Your task to perform on an android device: see sites visited before in the chrome app Image 0: 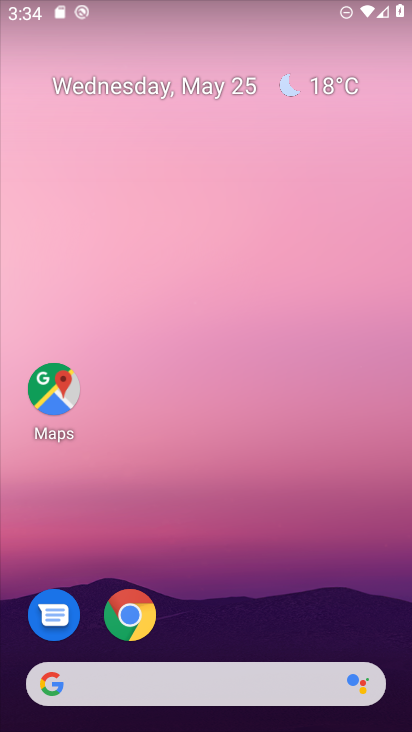
Step 0: click (128, 609)
Your task to perform on an android device: see sites visited before in the chrome app Image 1: 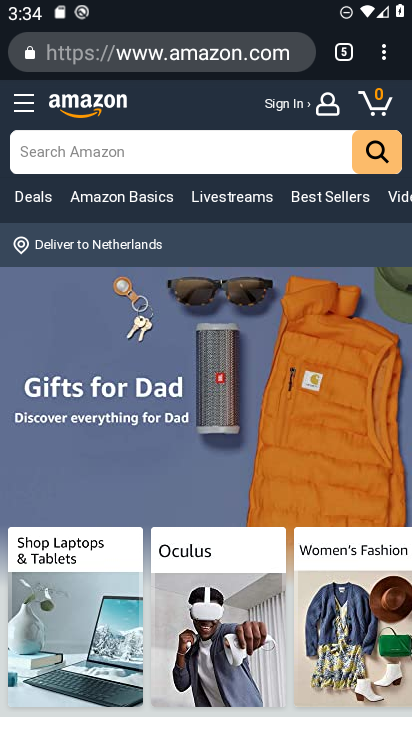
Step 1: click (382, 56)
Your task to perform on an android device: see sites visited before in the chrome app Image 2: 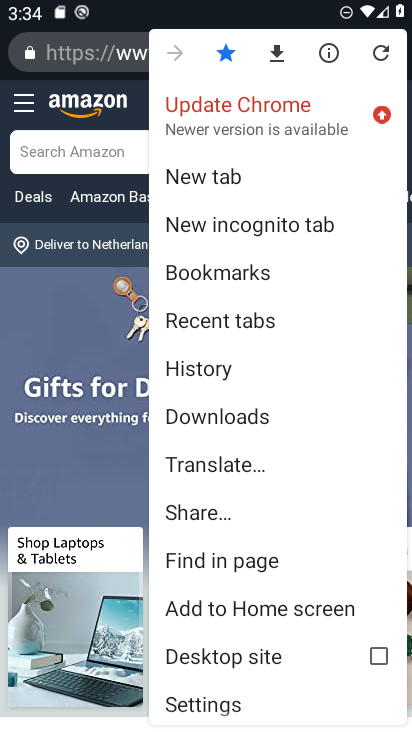
Step 2: click (241, 320)
Your task to perform on an android device: see sites visited before in the chrome app Image 3: 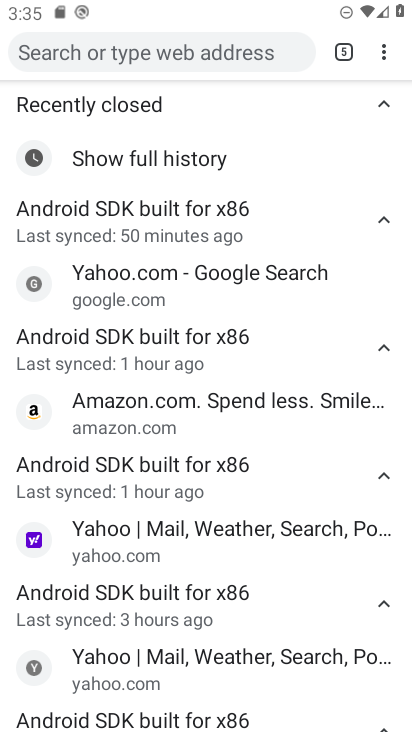
Step 3: task complete